Your task to perform on an android device: install app "Facebook" Image 0: 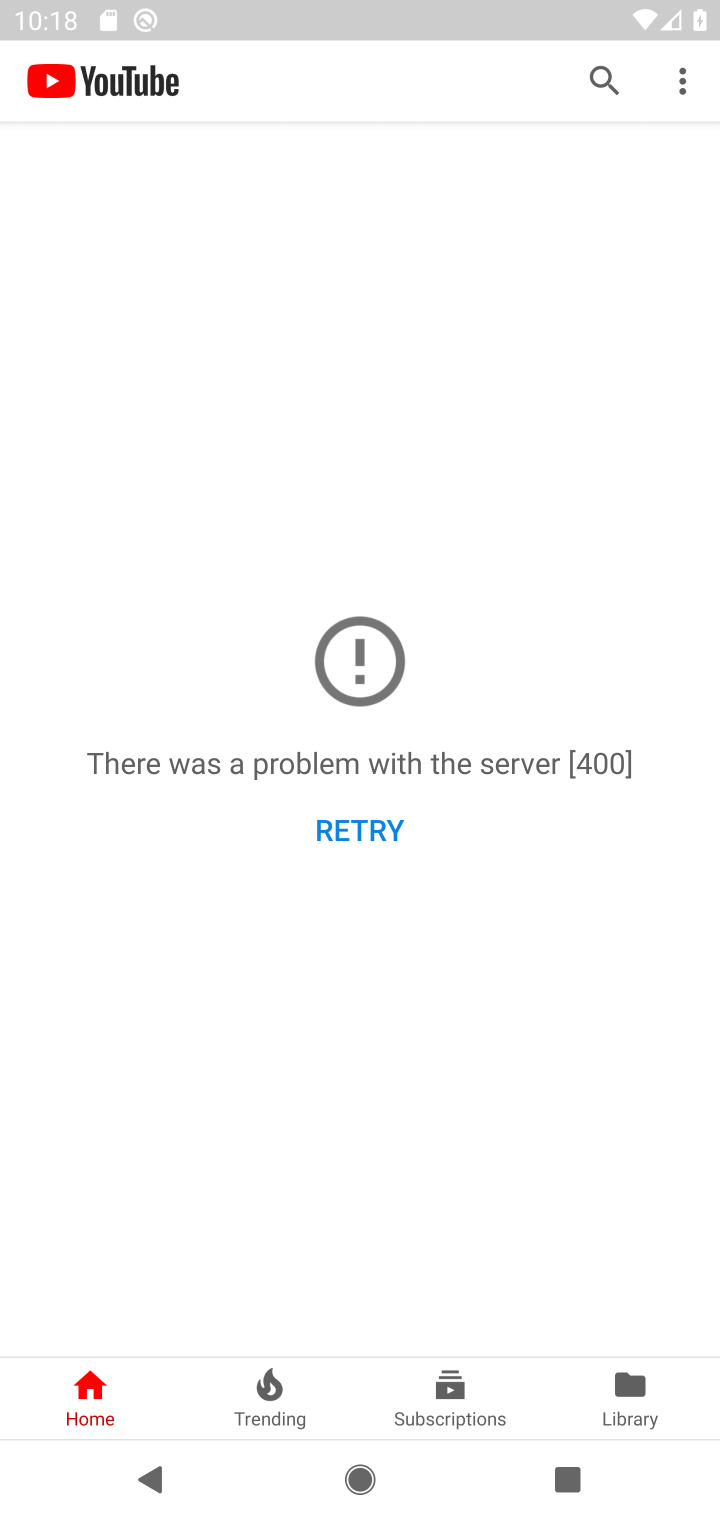
Step 0: press home button
Your task to perform on an android device: install app "Facebook" Image 1: 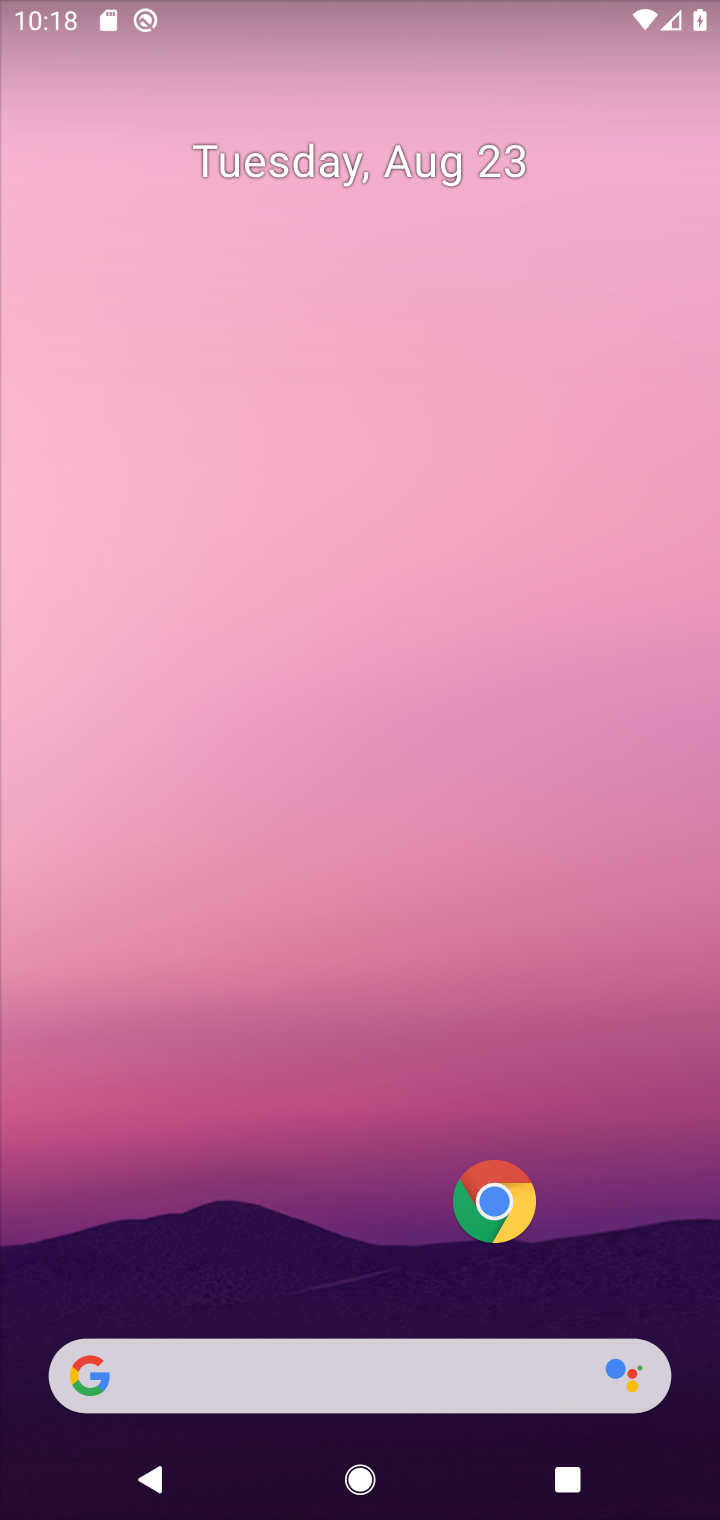
Step 1: drag from (255, 1515) to (425, 364)
Your task to perform on an android device: install app "Facebook" Image 2: 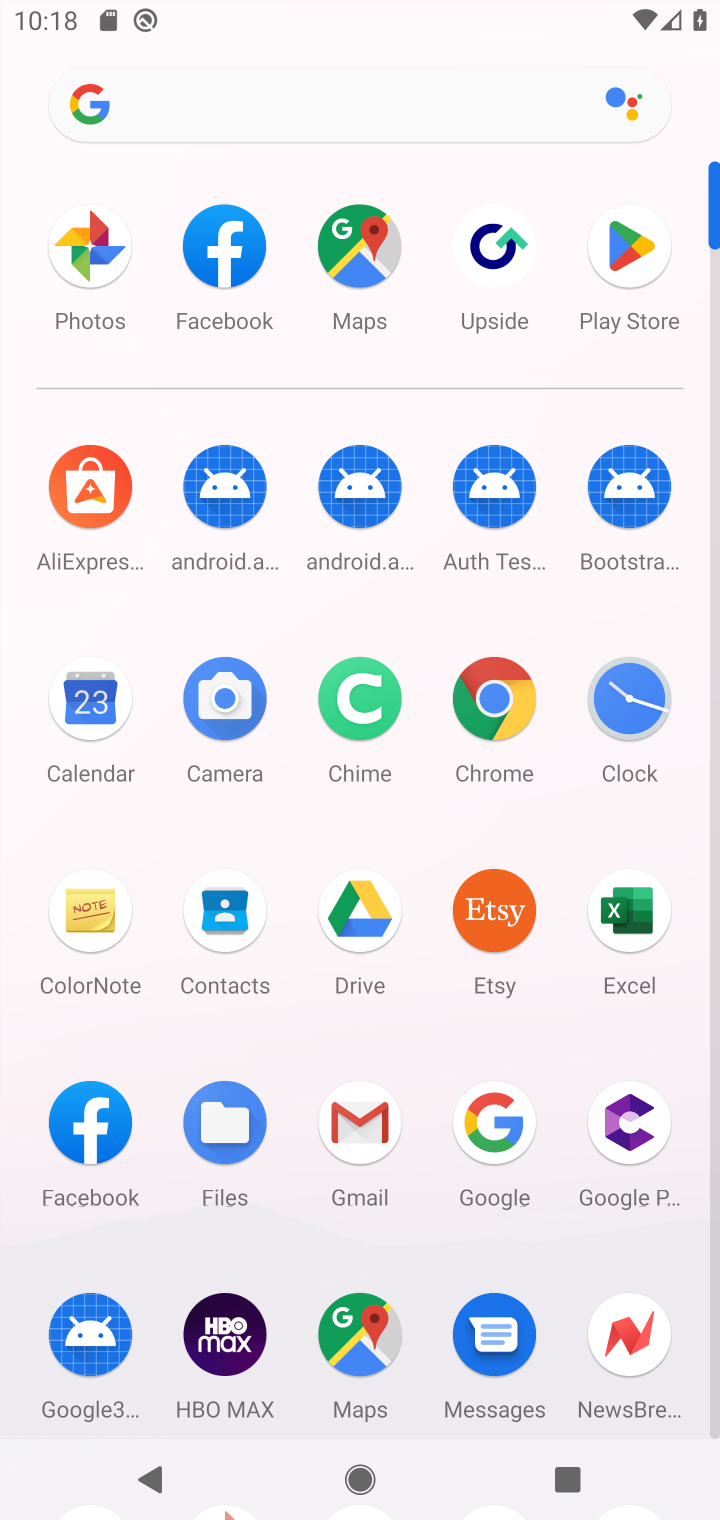
Step 2: click (612, 224)
Your task to perform on an android device: install app "Facebook" Image 3: 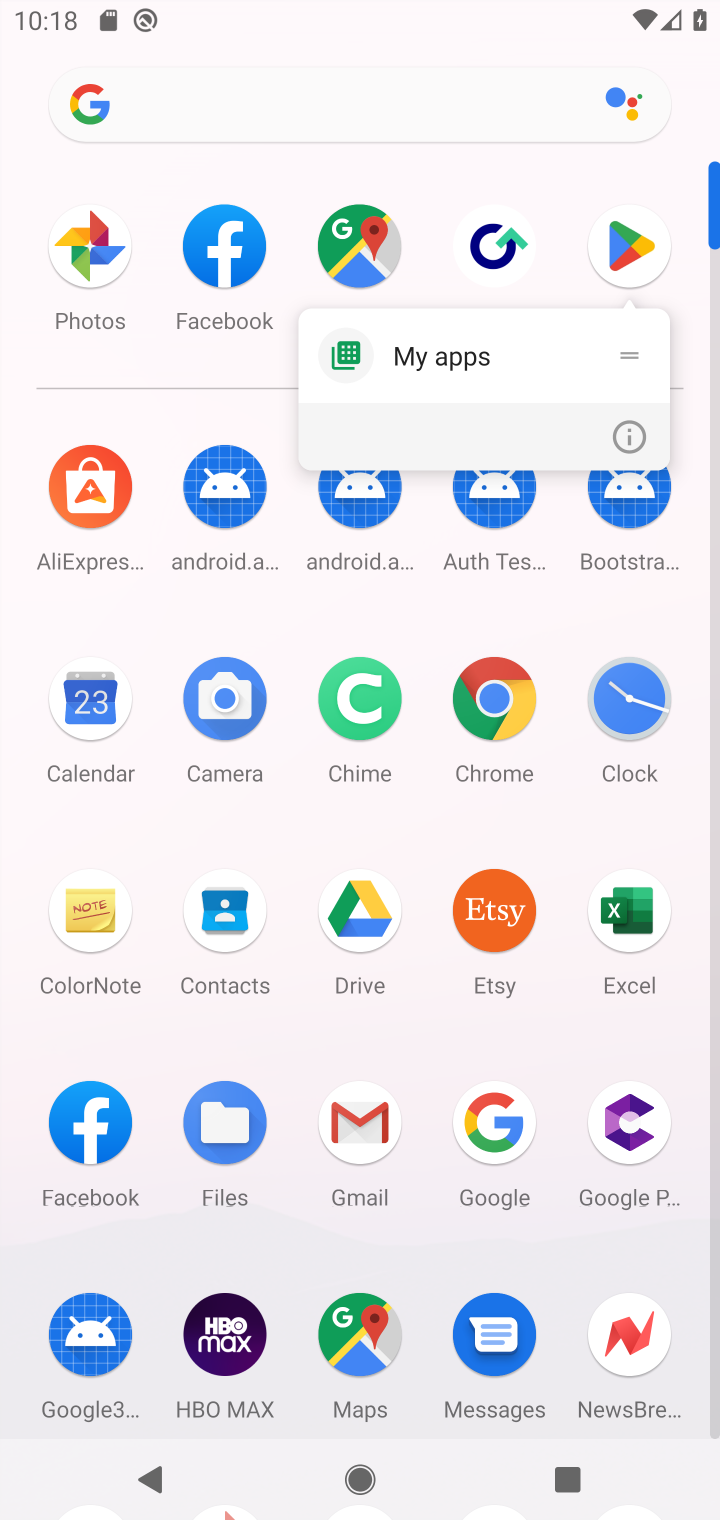
Step 3: click (644, 246)
Your task to perform on an android device: install app "Facebook" Image 4: 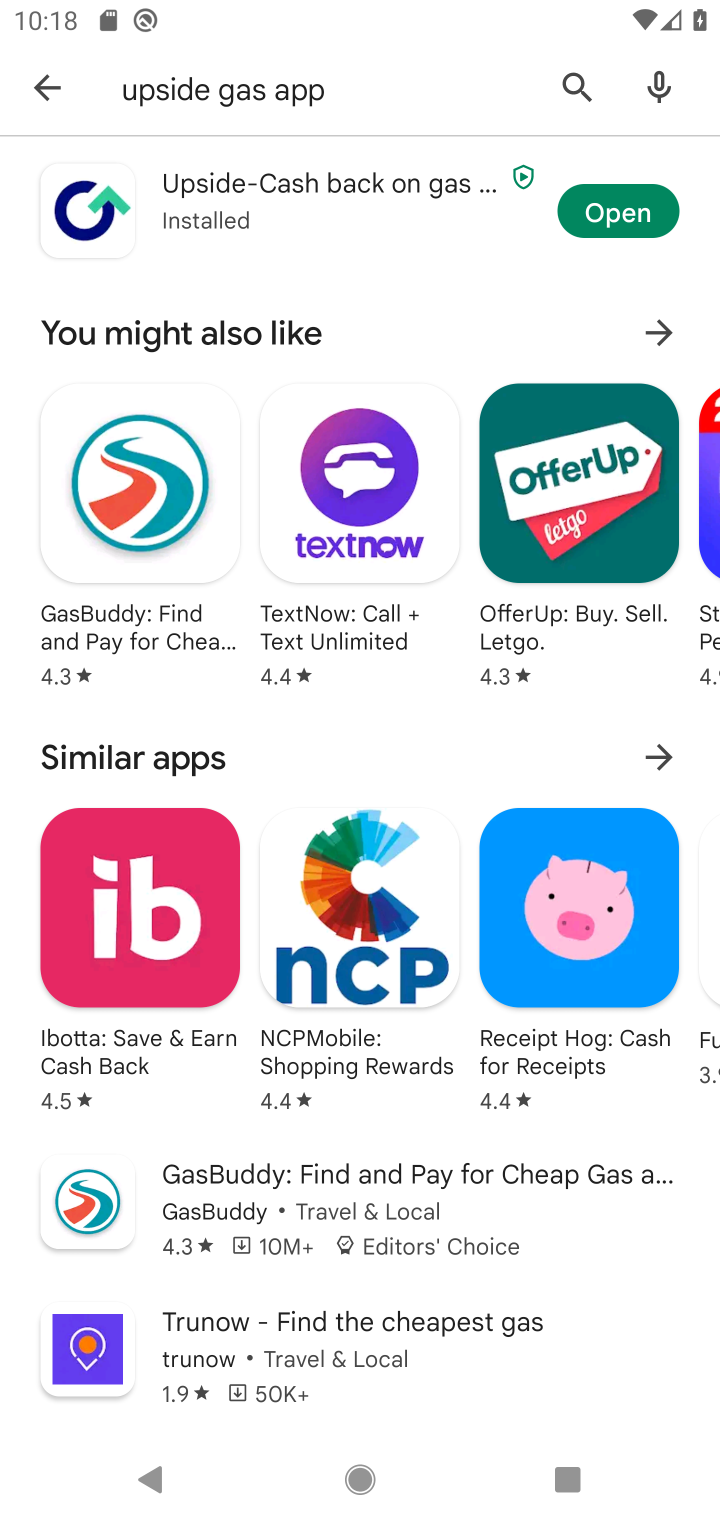
Step 4: click (82, 85)
Your task to perform on an android device: install app "Facebook" Image 5: 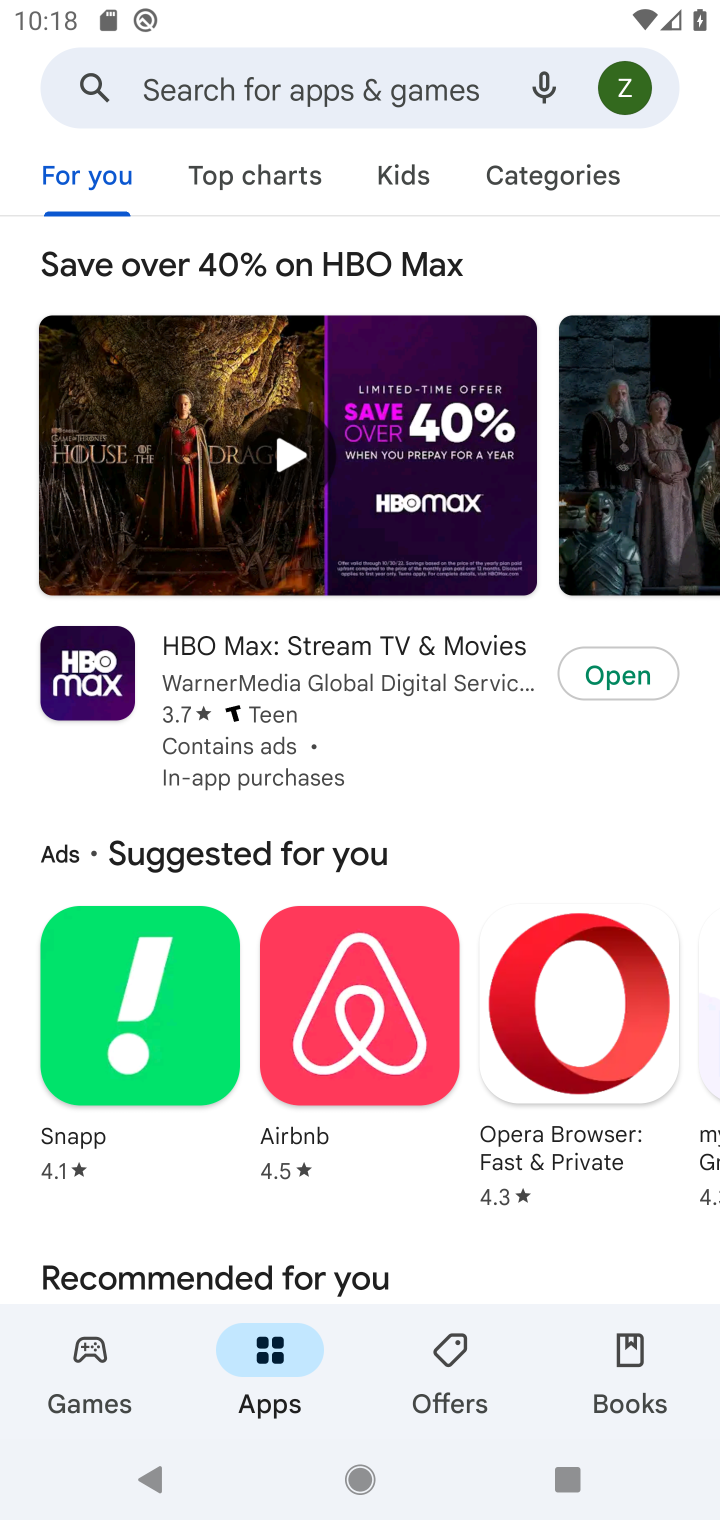
Step 5: click (233, 93)
Your task to perform on an android device: install app "Facebook" Image 6: 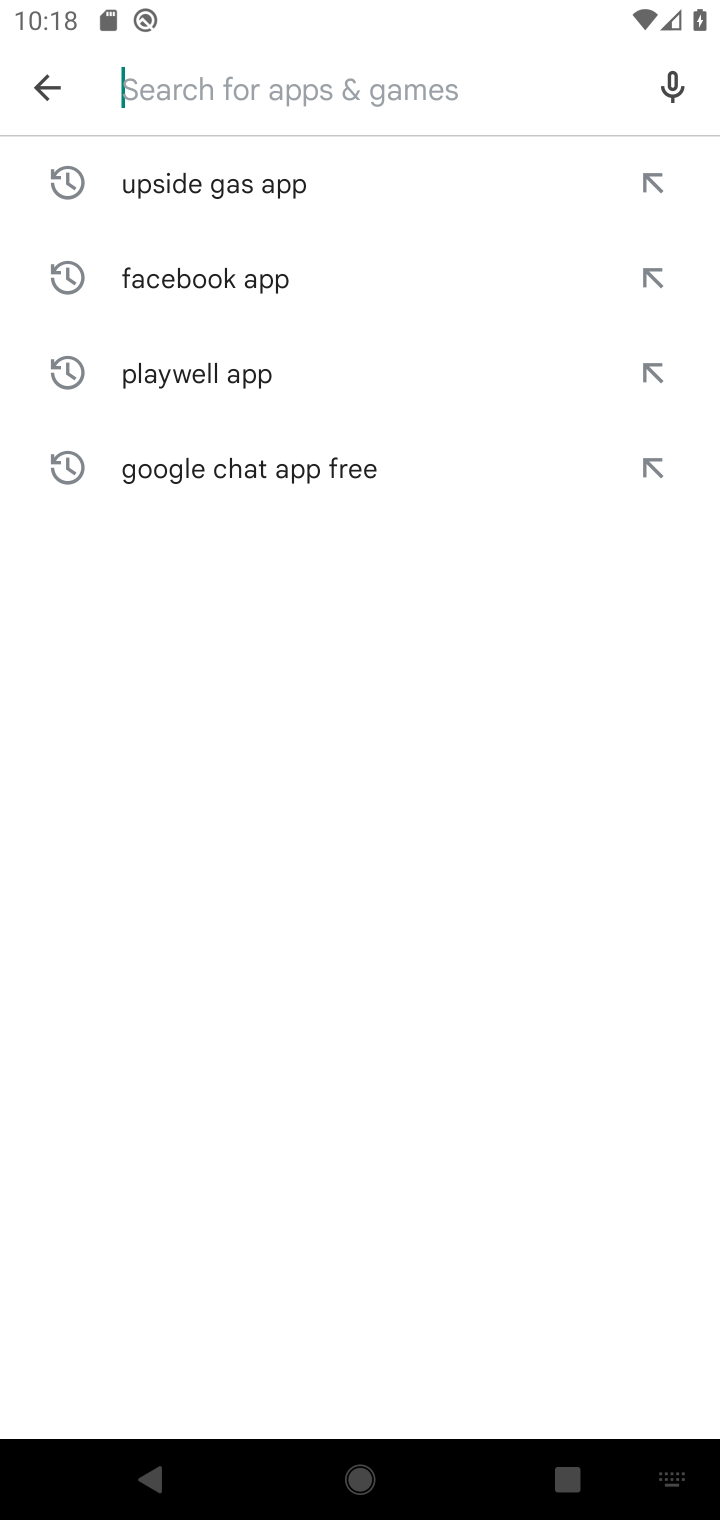
Step 6: click (336, 73)
Your task to perform on an android device: install app "Facebook" Image 7: 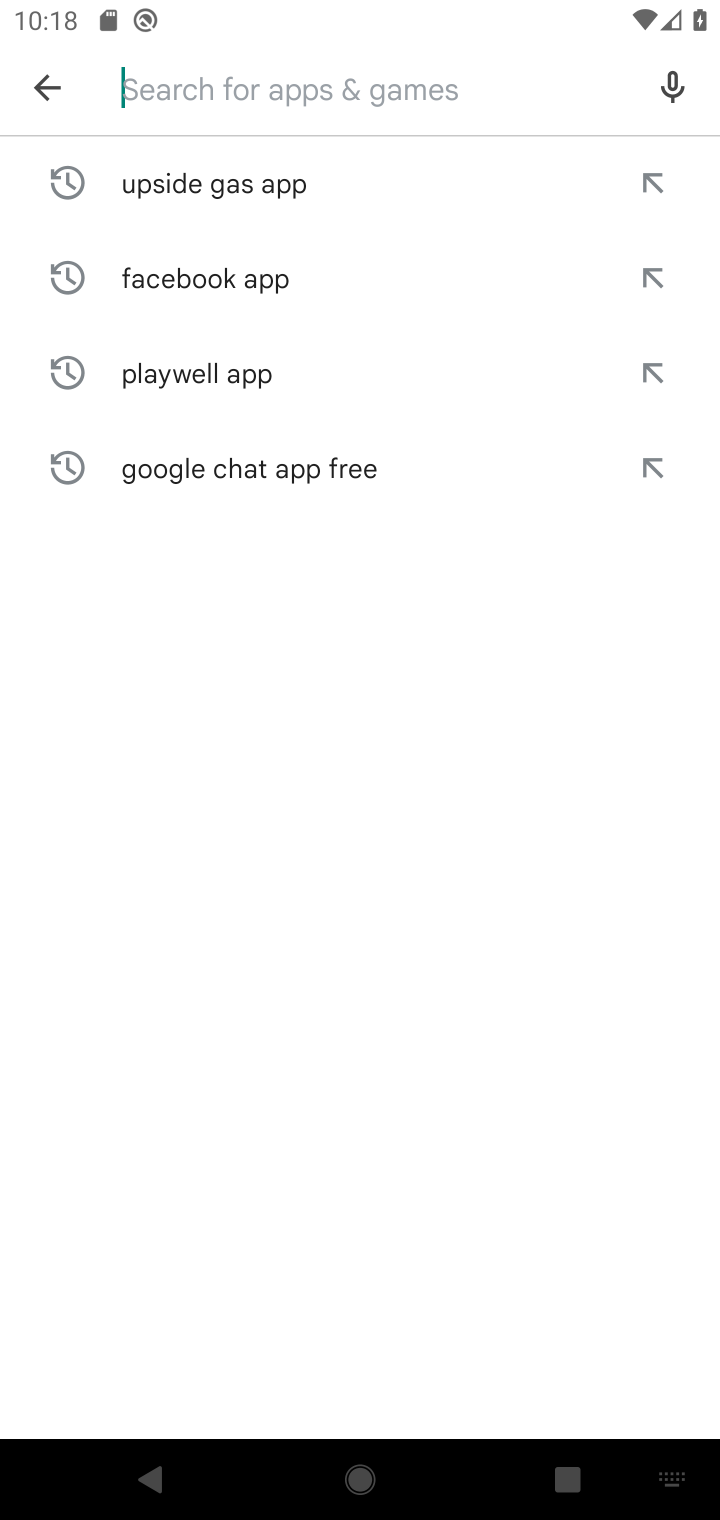
Step 7: type "Facebook "
Your task to perform on an android device: install app "Facebook" Image 8: 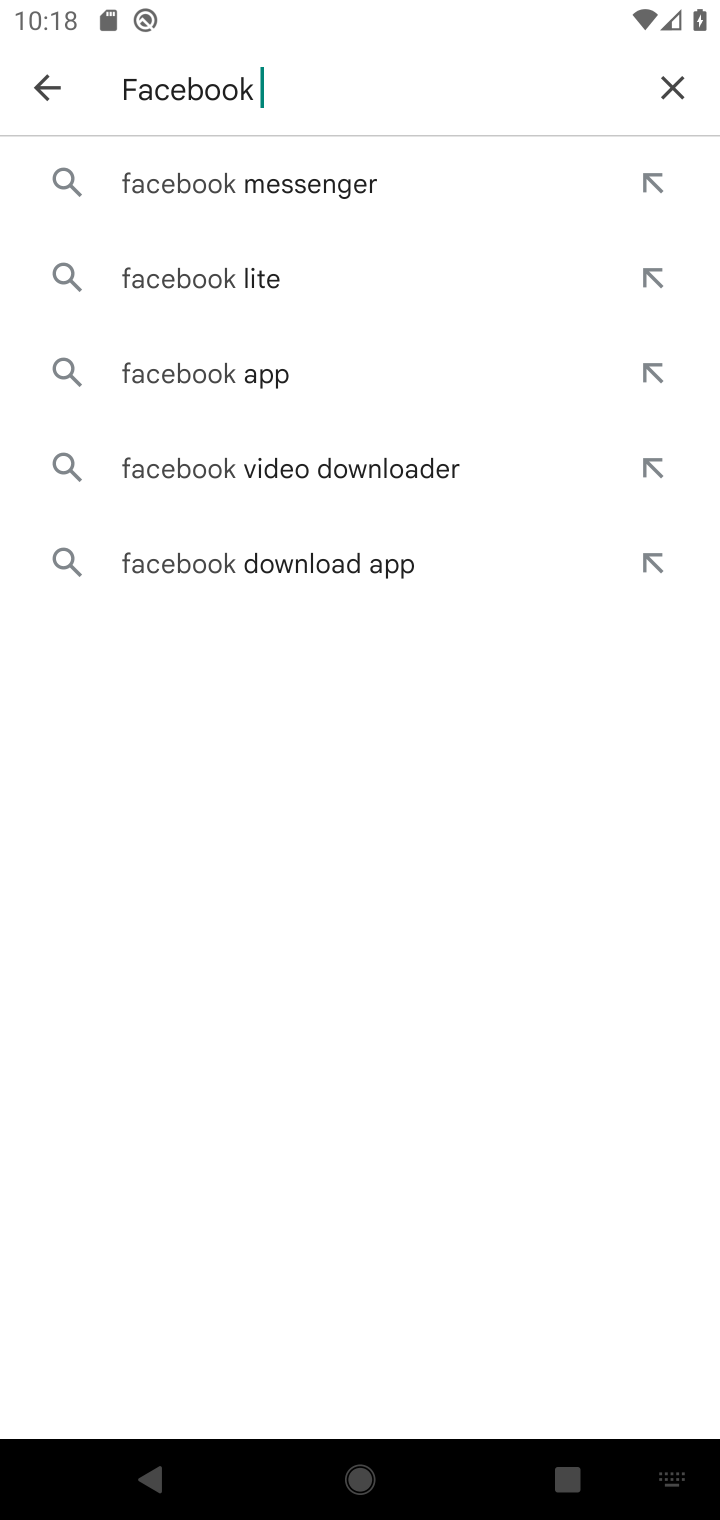
Step 8: click (265, 364)
Your task to perform on an android device: install app "Facebook" Image 9: 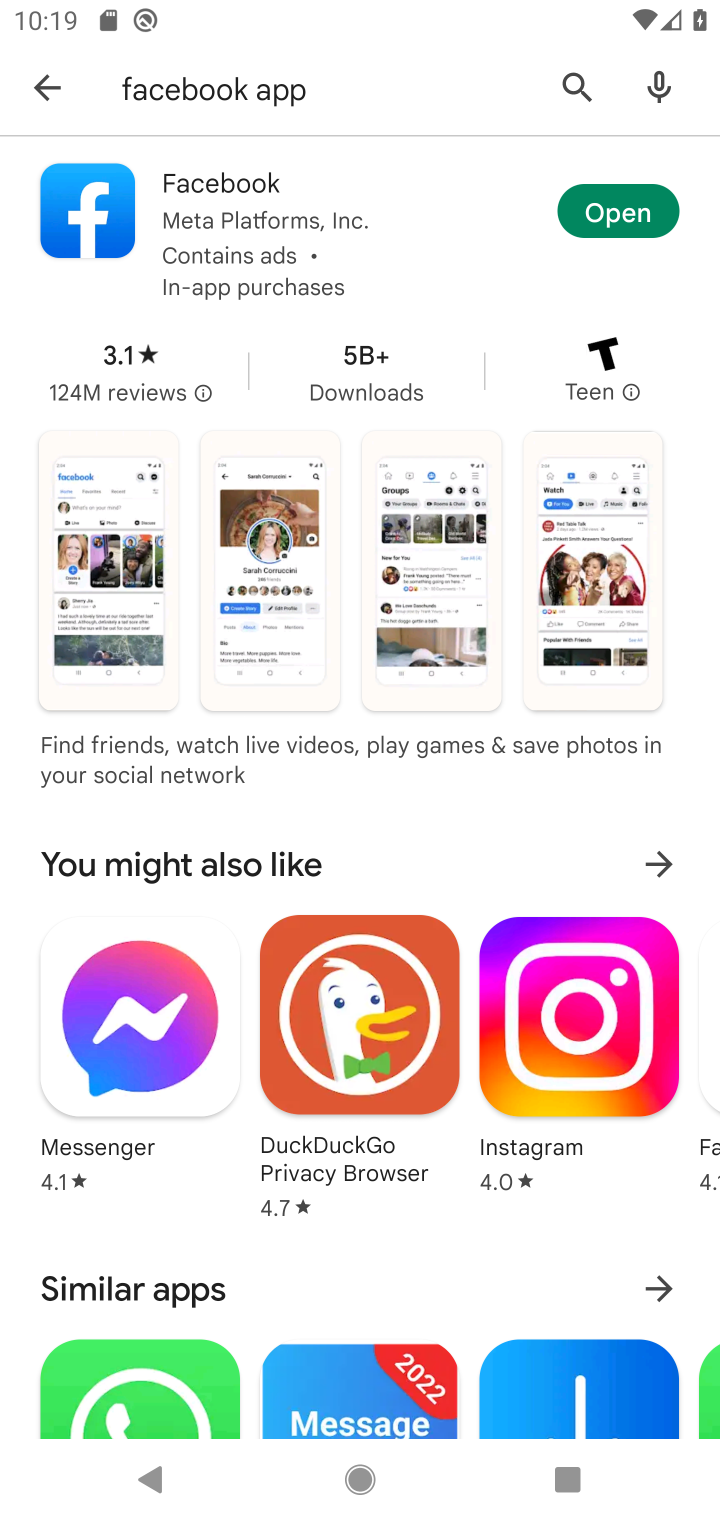
Step 9: task complete